Your task to perform on an android device: Open Google Chrome and open the bookmarks view Image 0: 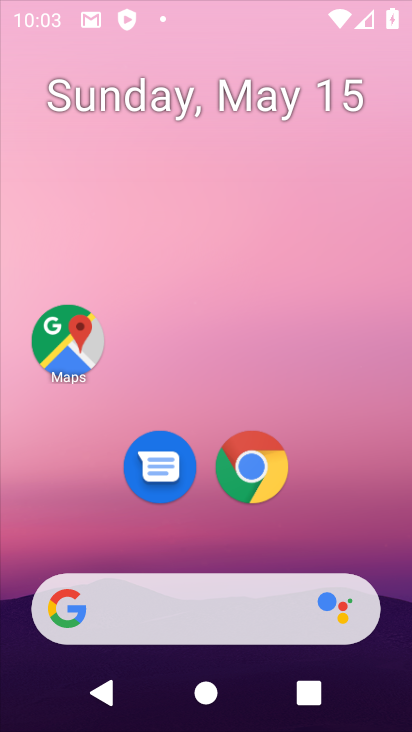
Step 0: drag from (255, 104) to (219, 126)
Your task to perform on an android device: Open Google Chrome and open the bookmarks view Image 1: 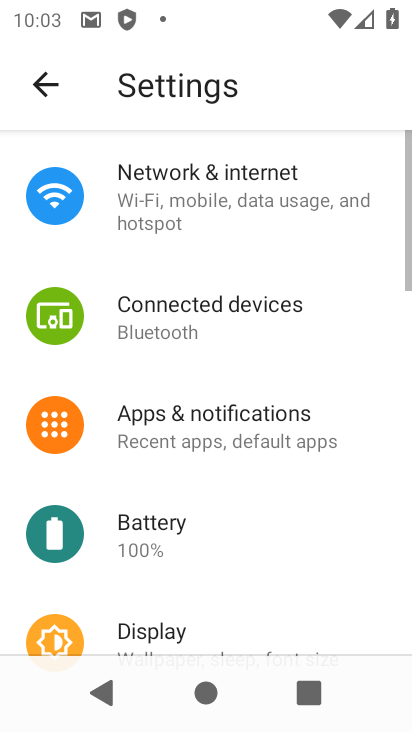
Step 1: drag from (200, 537) to (256, 121)
Your task to perform on an android device: Open Google Chrome and open the bookmarks view Image 2: 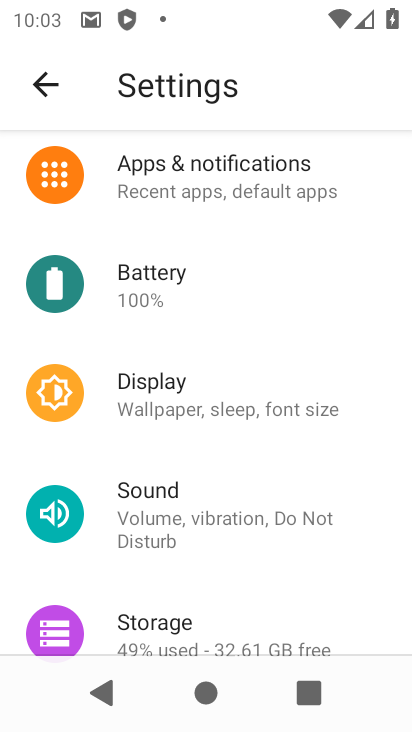
Step 2: press home button
Your task to perform on an android device: Open Google Chrome and open the bookmarks view Image 3: 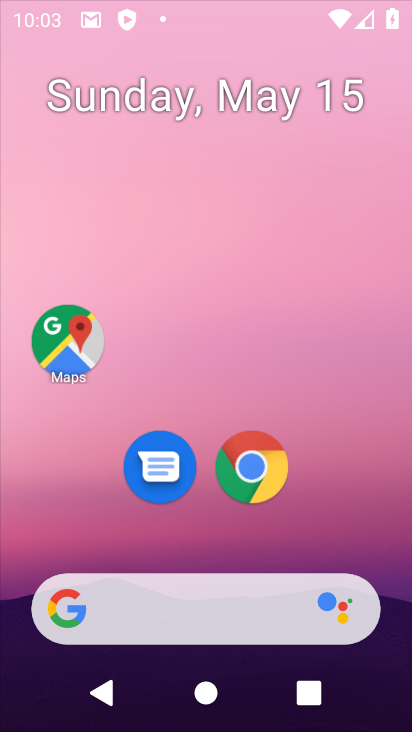
Step 3: drag from (229, 608) to (352, 146)
Your task to perform on an android device: Open Google Chrome and open the bookmarks view Image 4: 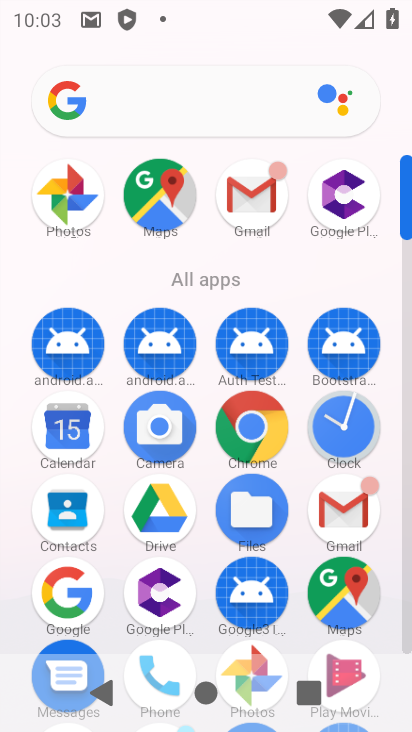
Step 4: click (265, 423)
Your task to perform on an android device: Open Google Chrome and open the bookmarks view Image 5: 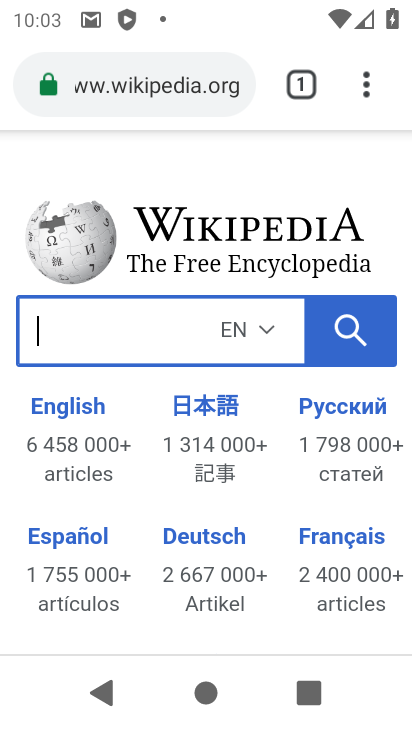
Step 5: task complete